Your task to perform on an android device: turn on location history Image 0: 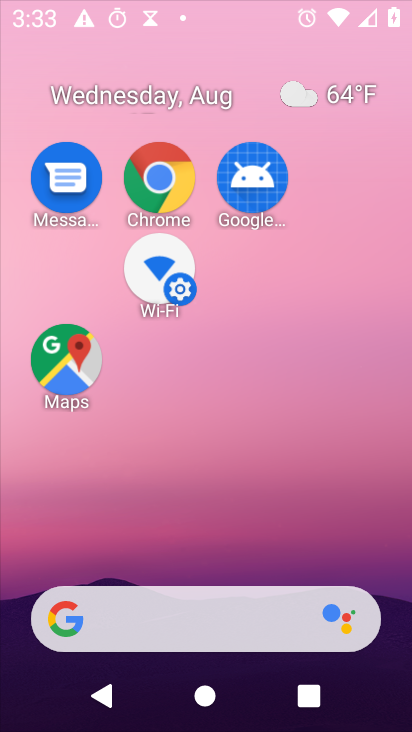
Step 0: press home button
Your task to perform on an android device: turn on location history Image 1: 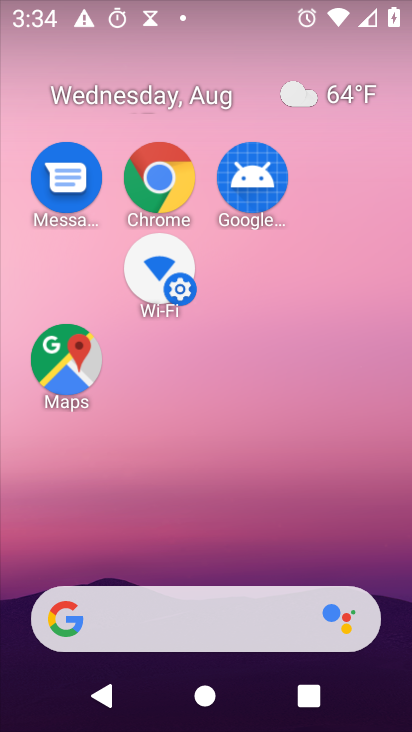
Step 1: click (307, 12)
Your task to perform on an android device: turn on location history Image 2: 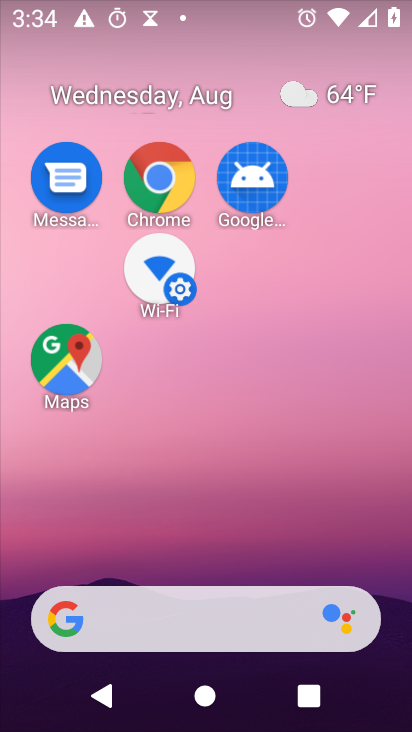
Step 2: drag from (310, 287) to (294, 38)
Your task to perform on an android device: turn on location history Image 3: 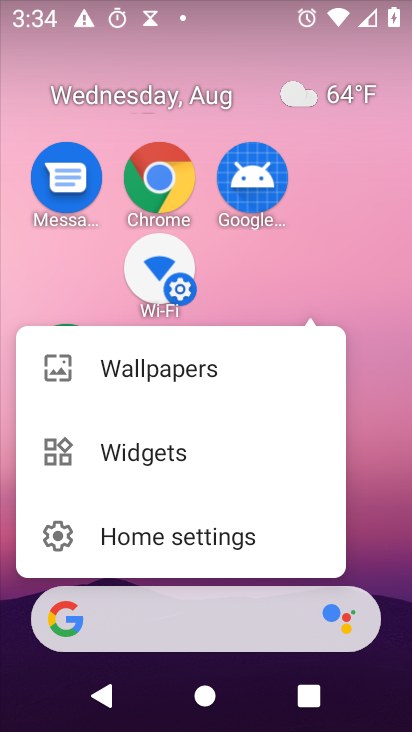
Step 3: click (375, 447)
Your task to perform on an android device: turn on location history Image 4: 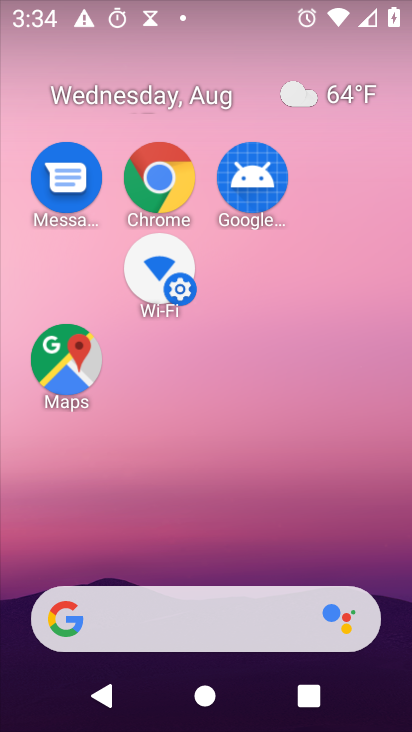
Step 4: drag from (315, 369) to (303, 0)
Your task to perform on an android device: turn on location history Image 5: 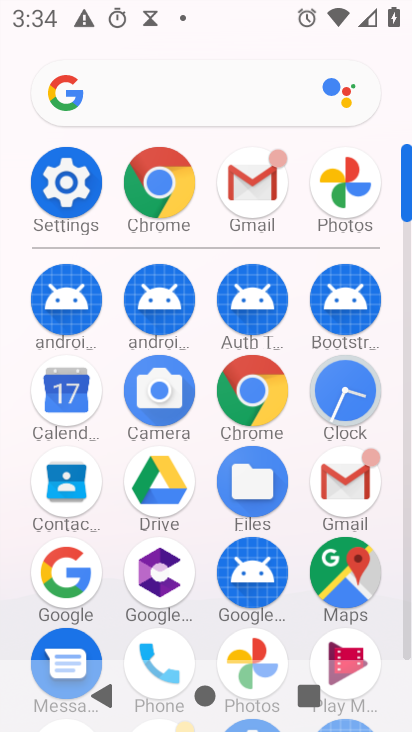
Step 5: click (84, 195)
Your task to perform on an android device: turn on location history Image 6: 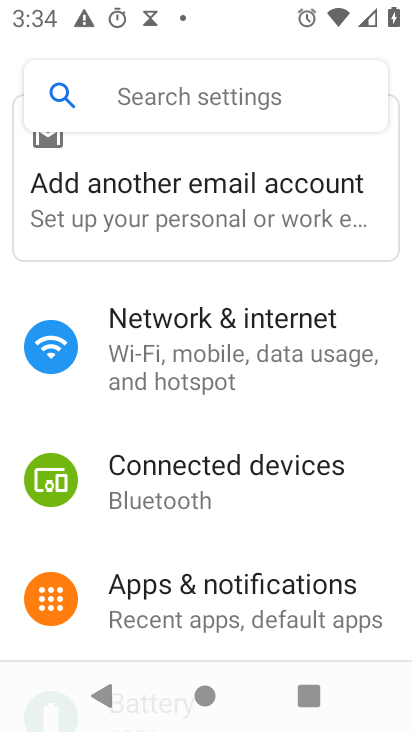
Step 6: drag from (317, 545) to (337, 78)
Your task to perform on an android device: turn on location history Image 7: 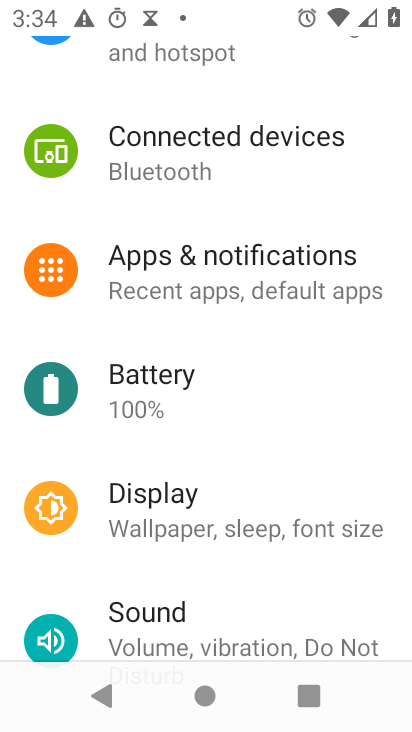
Step 7: drag from (288, 591) to (324, 86)
Your task to perform on an android device: turn on location history Image 8: 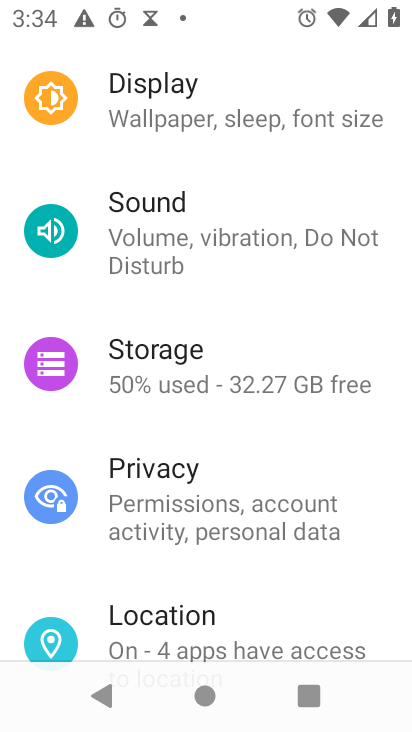
Step 8: click (130, 617)
Your task to perform on an android device: turn on location history Image 9: 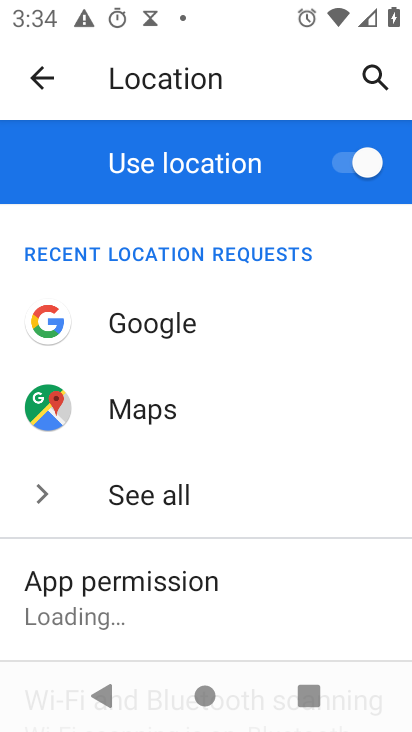
Step 9: drag from (360, 469) to (348, 192)
Your task to perform on an android device: turn on location history Image 10: 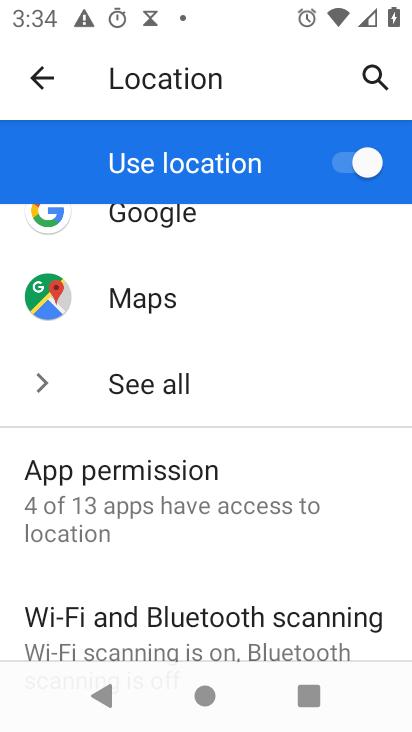
Step 10: drag from (322, 459) to (311, 118)
Your task to perform on an android device: turn on location history Image 11: 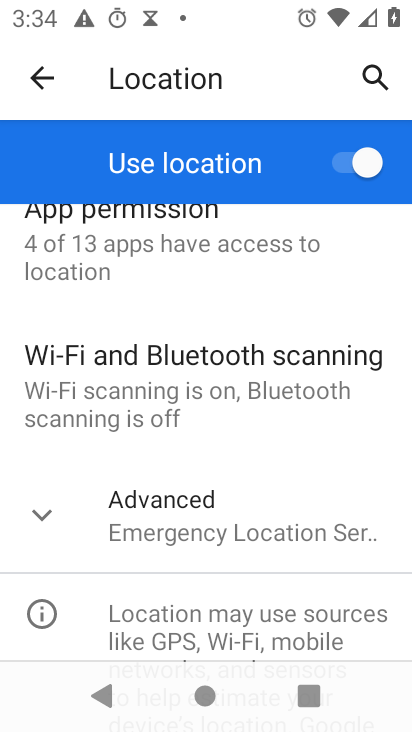
Step 11: click (162, 532)
Your task to perform on an android device: turn on location history Image 12: 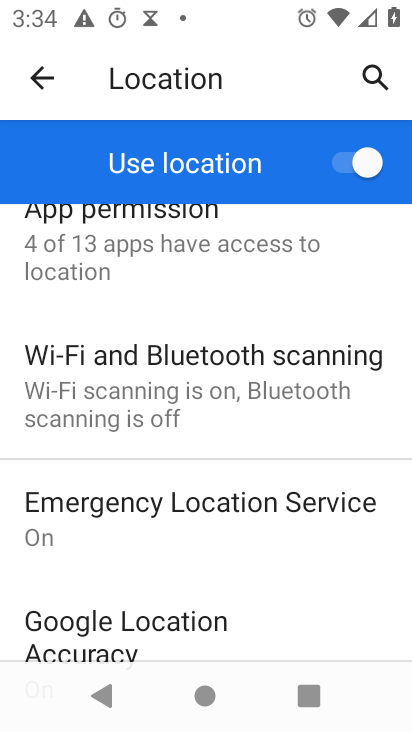
Step 12: drag from (378, 566) to (330, 336)
Your task to perform on an android device: turn on location history Image 13: 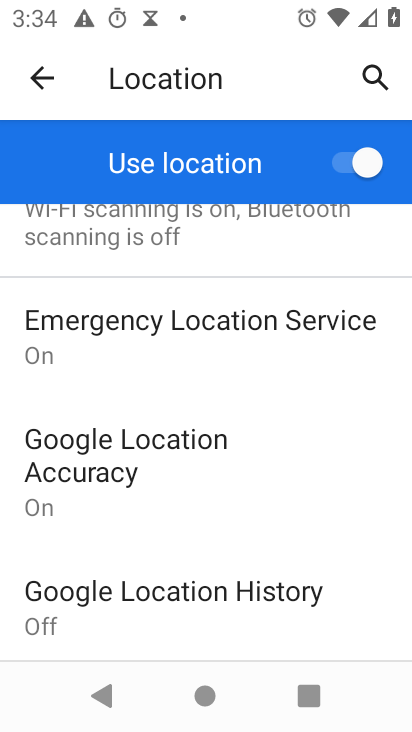
Step 13: click (176, 592)
Your task to perform on an android device: turn on location history Image 14: 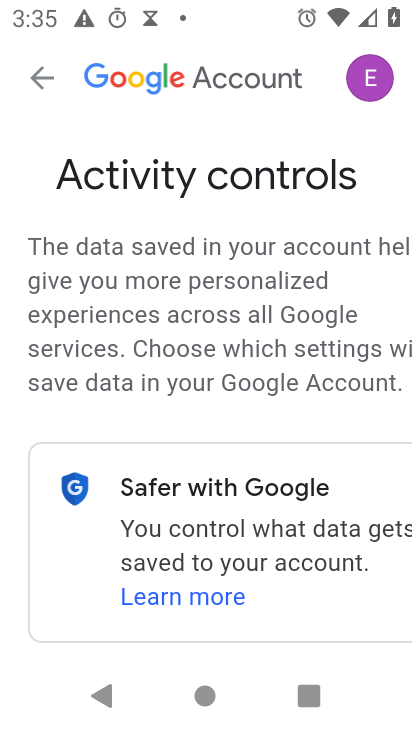
Step 14: drag from (354, 626) to (359, 254)
Your task to perform on an android device: turn on location history Image 15: 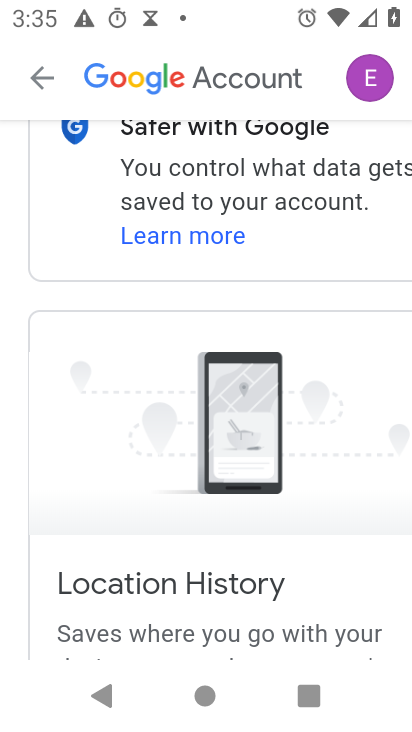
Step 15: drag from (371, 612) to (348, 311)
Your task to perform on an android device: turn on location history Image 16: 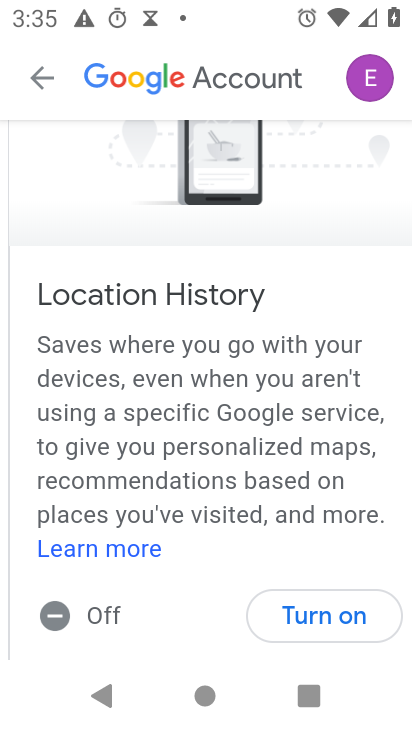
Step 16: click (326, 615)
Your task to perform on an android device: turn on location history Image 17: 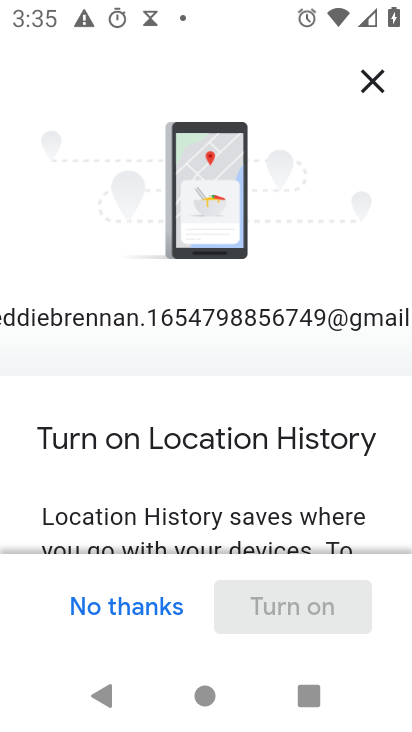
Step 17: drag from (403, 504) to (411, 158)
Your task to perform on an android device: turn on location history Image 18: 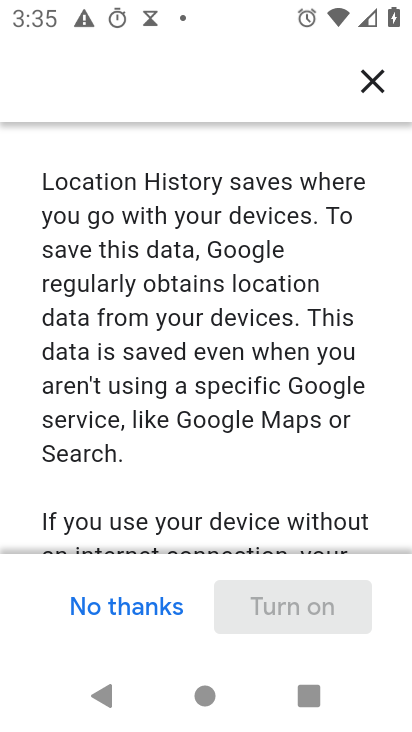
Step 18: drag from (369, 197) to (367, 97)
Your task to perform on an android device: turn on location history Image 19: 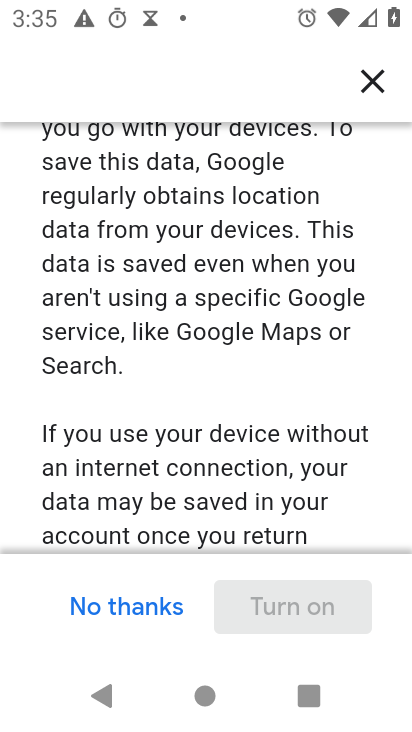
Step 19: drag from (396, 477) to (378, 121)
Your task to perform on an android device: turn on location history Image 20: 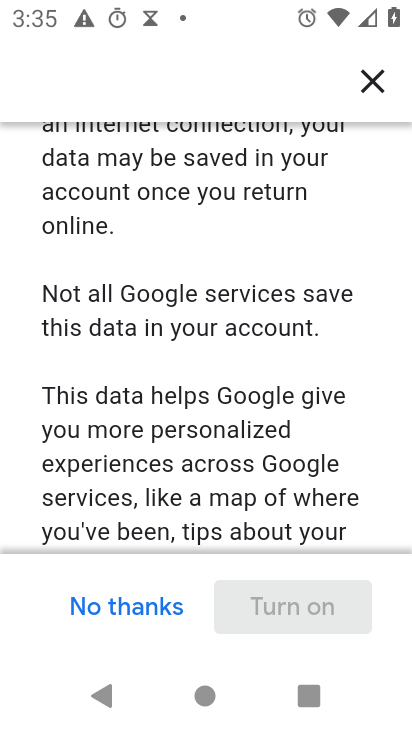
Step 20: drag from (373, 519) to (380, 117)
Your task to perform on an android device: turn on location history Image 21: 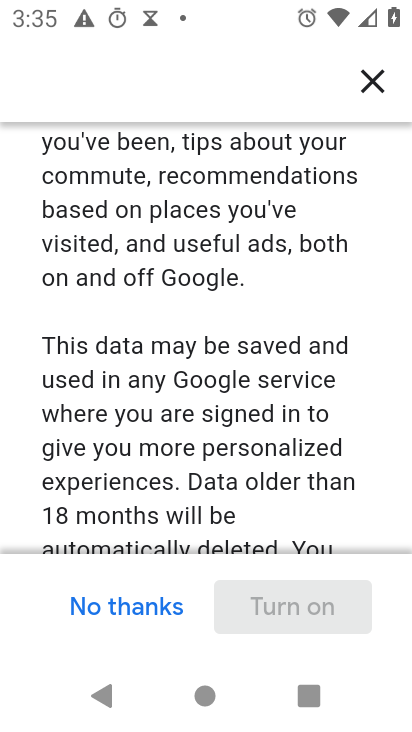
Step 21: drag from (397, 442) to (411, 110)
Your task to perform on an android device: turn on location history Image 22: 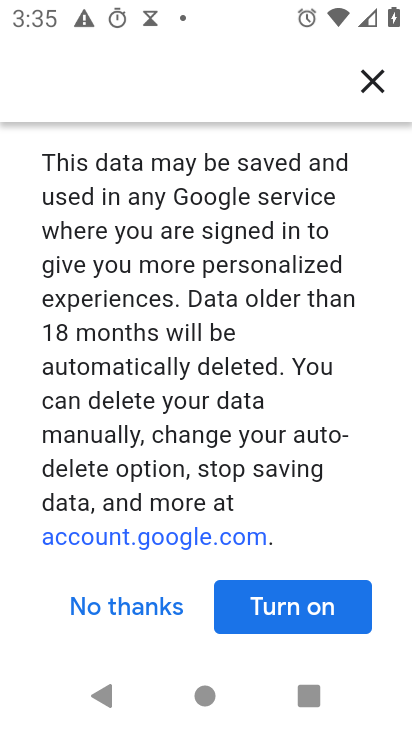
Step 22: click (296, 627)
Your task to perform on an android device: turn on location history Image 23: 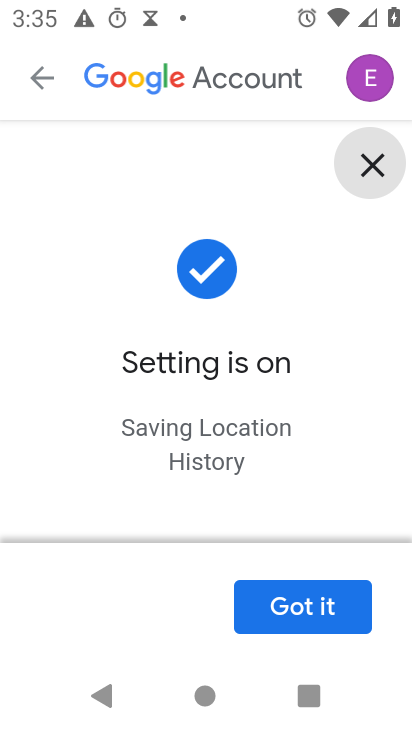
Step 23: click (307, 616)
Your task to perform on an android device: turn on location history Image 24: 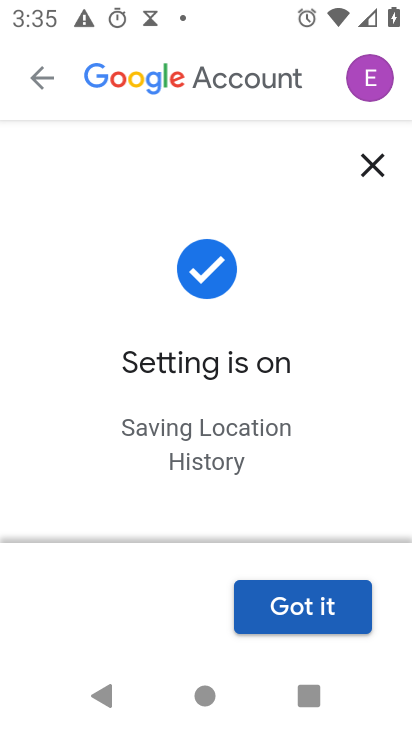
Step 24: click (327, 623)
Your task to perform on an android device: turn on location history Image 25: 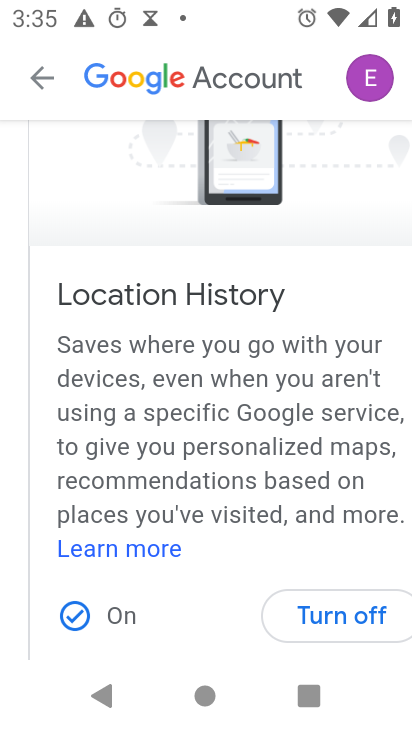
Step 25: task complete